Your task to perform on an android device: What's on my calendar today? Image 0: 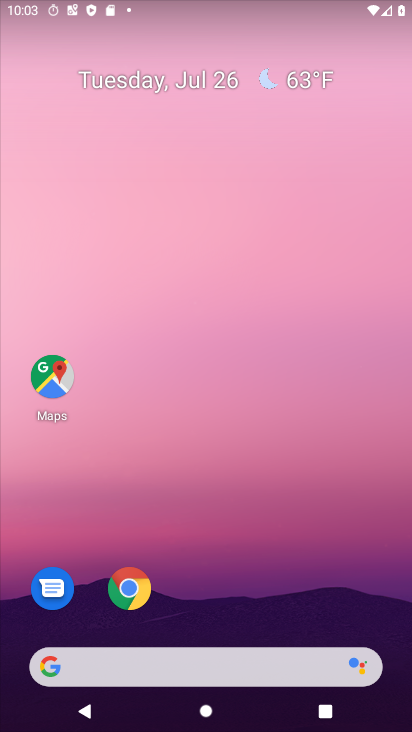
Step 0: click (157, 95)
Your task to perform on an android device: What's on my calendar today? Image 1: 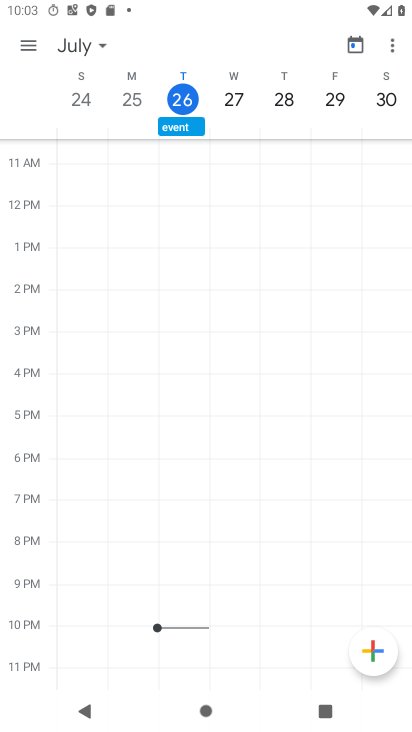
Step 1: task complete